Your task to perform on an android device: Open Chrome and go to the settings page Image 0: 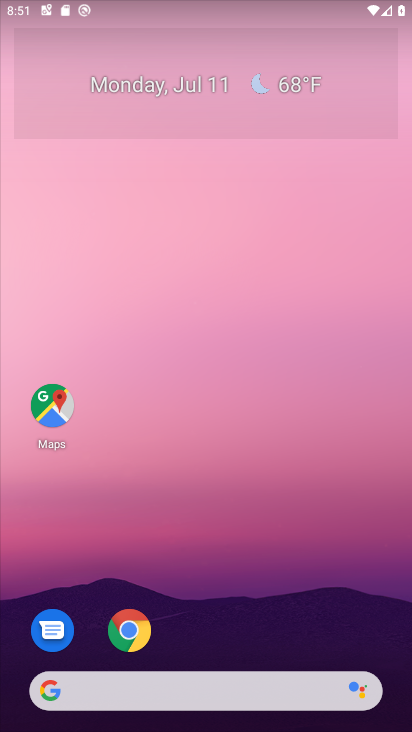
Step 0: drag from (234, 652) to (243, 0)
Your task to perform on an android device: Open Chrome and go to the settings page Image 1: 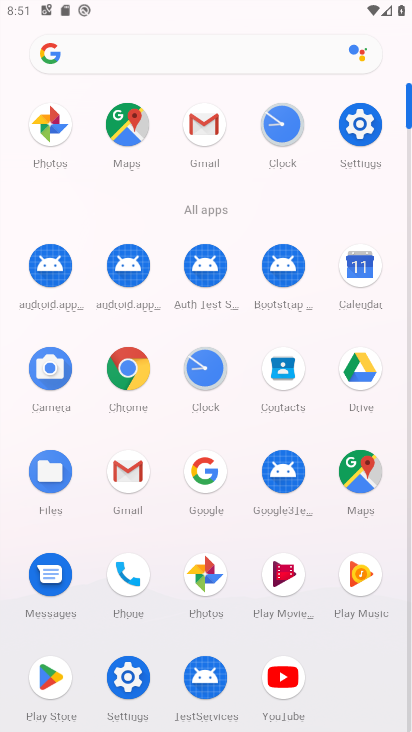
Step 1: click (121, 384)
Your task to perform on an android device: Open Chrome and go to the settings page Image 2: 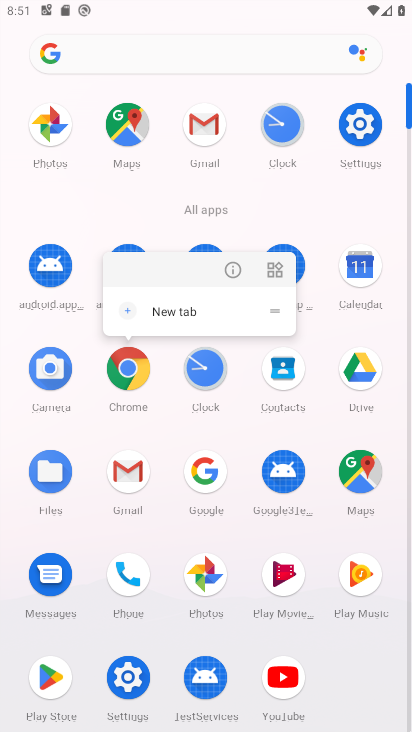
Step 2: click (122, 368)
Your task to perform on an android device: Open Chrome and go to the settings page Image 3: 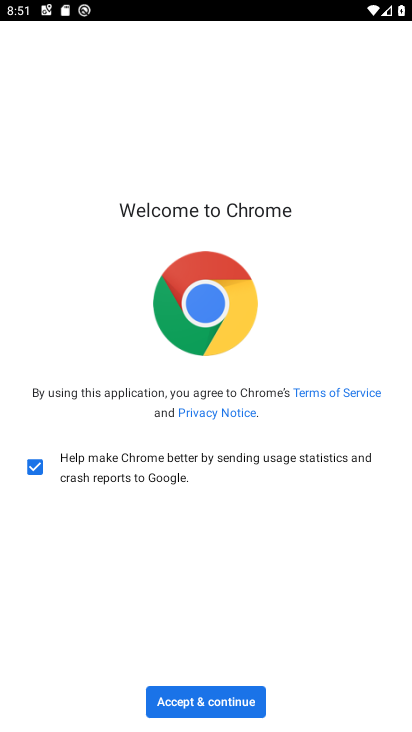
Step 3: click (238, 697)
Your task to perform on an android device: Open Chrome and go to the settings page Image 4: 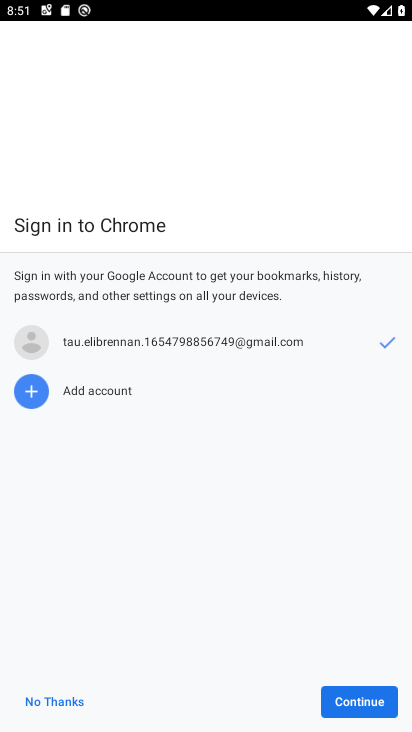
Step 4: click (391, 694)
Your task to perform on an android device: Open Chrome and go to the settings page Image 5: 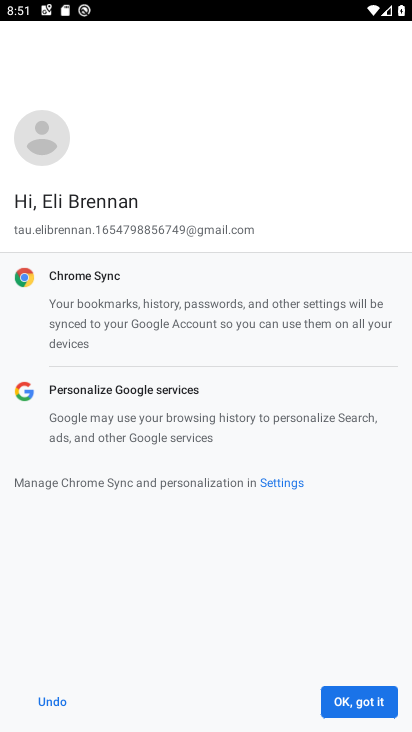
Step 5: click (362, 711)
Your task to perform on an android device: Open Chrome and go to the settings page Image 6: 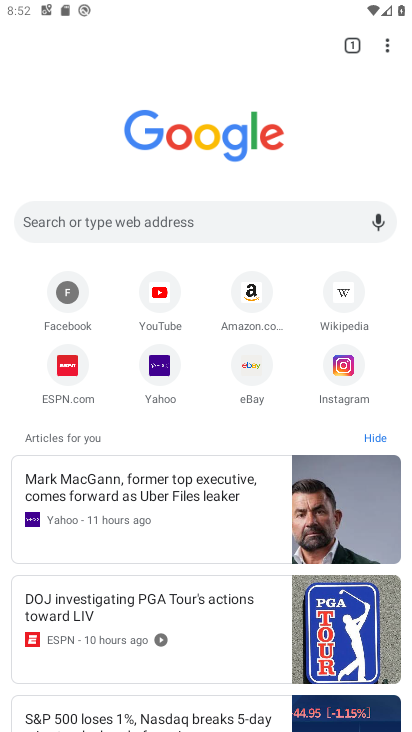
Step 6: click (387, 48)
Your task to perform on an android device: Open Chrome and go to the settings page Image 7: 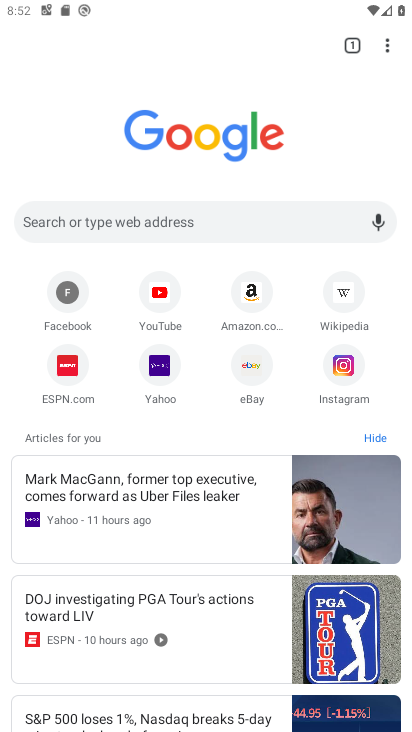
Step 7: click (388, 49)
Your task to perform on an android device: Open Chrome and go to the settings page Image 8: 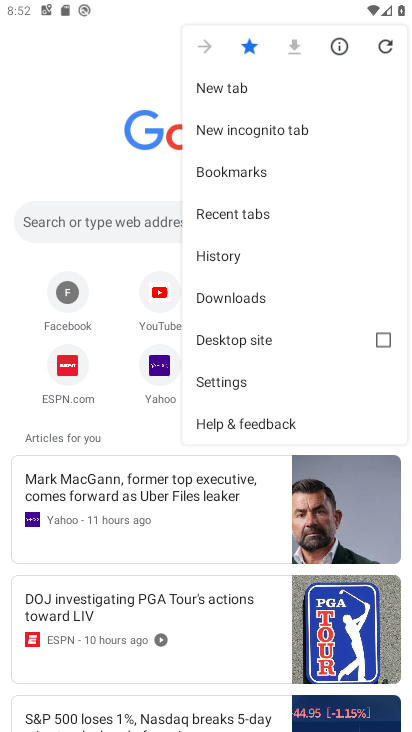
Step 8: click (239, 381)
Your task to perform on an android device: Open Chrome and go to the settings page Image 9: 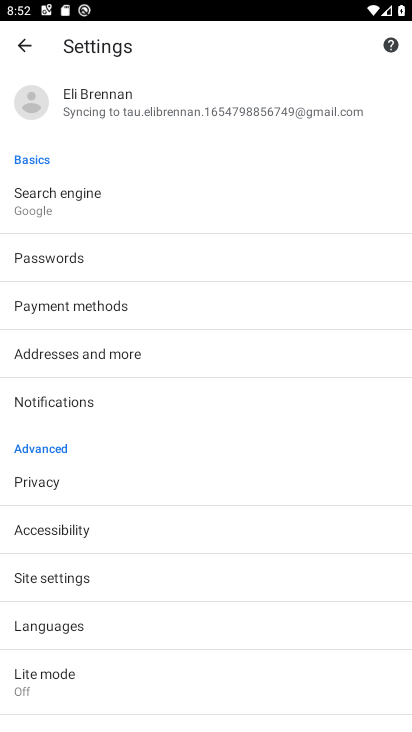
Step 9: task complete